Your task to perform on an android device: Open Youtube and go to the subscriptions tab Image 0: 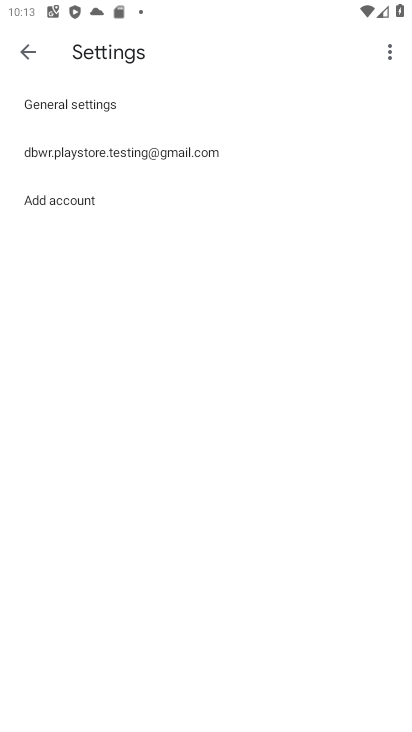
Step 0: press back button
Your task to perform on an android device: Open Youtube and go to the subscriptions tab Image 1: 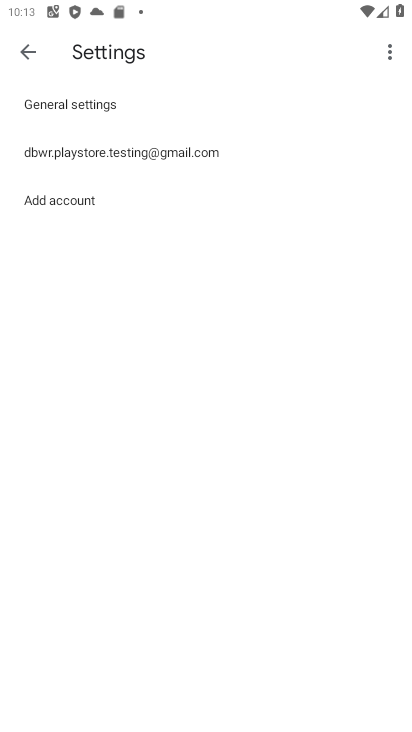
Step 1: press back button
Your task to perform on an android device: Open Youtube and go to the subscriptions tab Image 2: 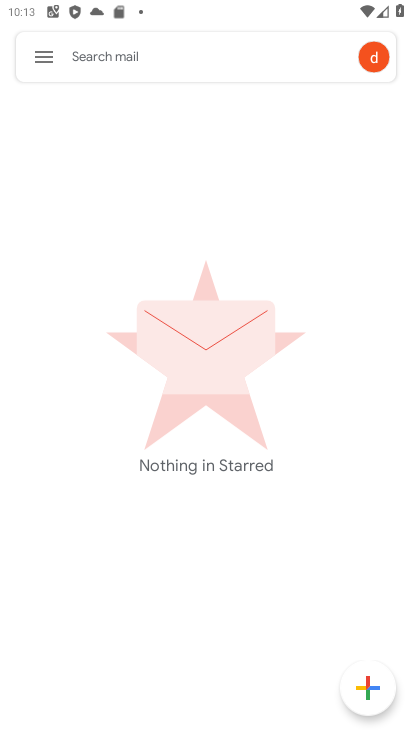
Step 2: press back button
Your task to perform on an android device: Open Youtube and go to the subscriptions tab Image 3: 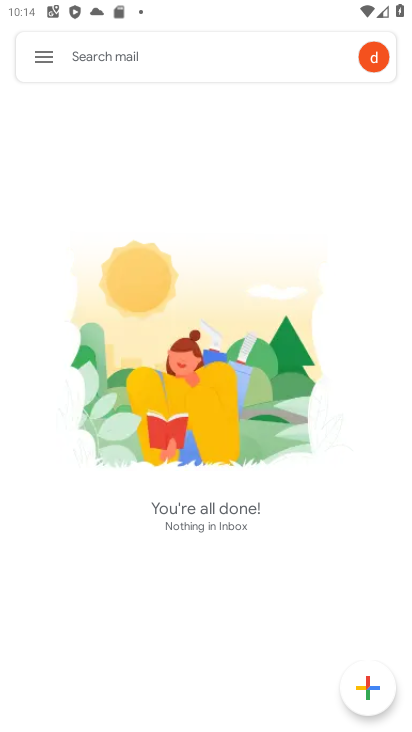
Step 3: press back button
Your task to perform on an android device: Open Youtube and go to the subscriptions tab Image 4: 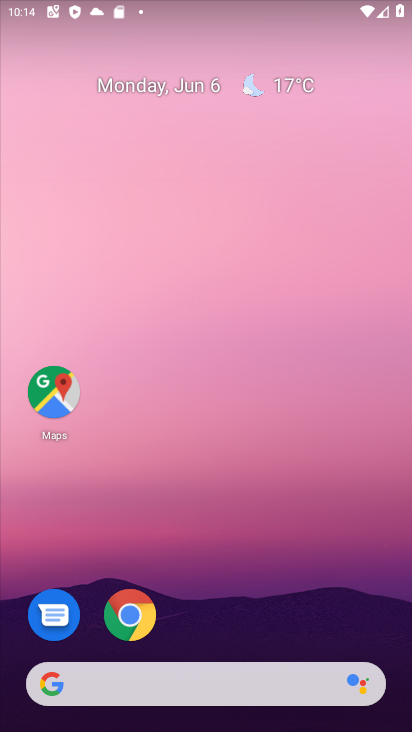
Step 4: drag from (234, 582) to (372, 6)
Your task to perform on an android device: Open Youtube and go to the subscriptions tab Image 5: 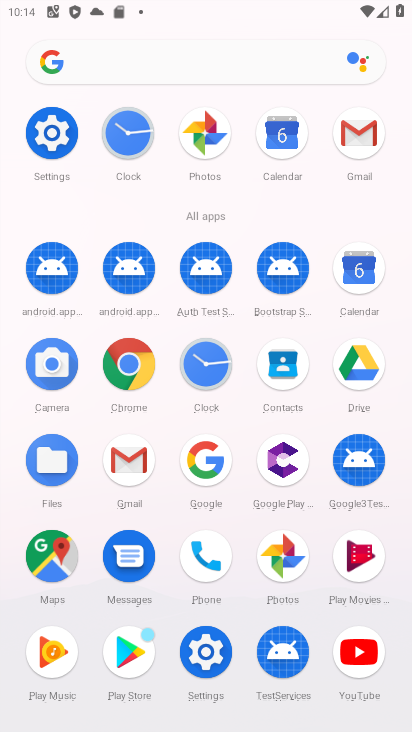
Step 5: click (369, 643)
Your task to perform on an android device: Open Youtube and go to the subscriptions tab Image 6: 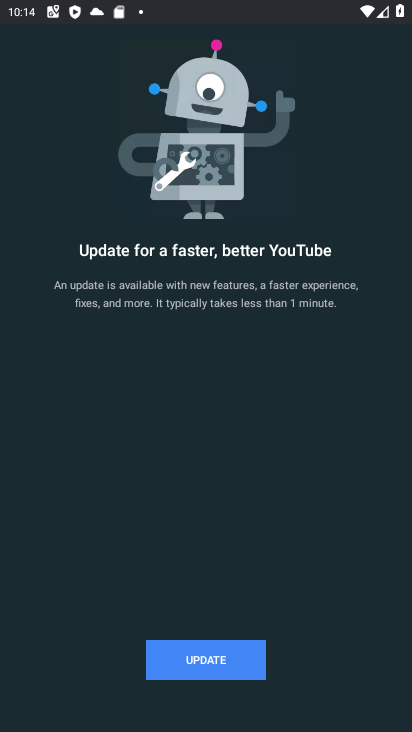
Step 6: click (236, 662)
Your task to perform on an android device: Open Youtube and go to the subscriptions tab Image 7: 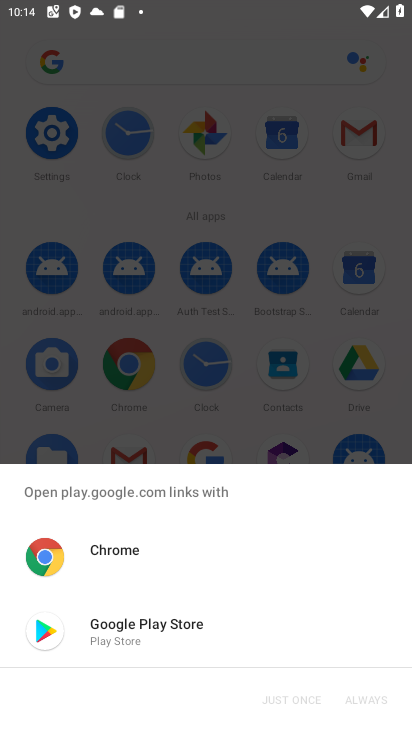
Step 7: click (101, 622)
Your task to perform on an android device: Open Youtube and go to the subscriptions tab Image 8: 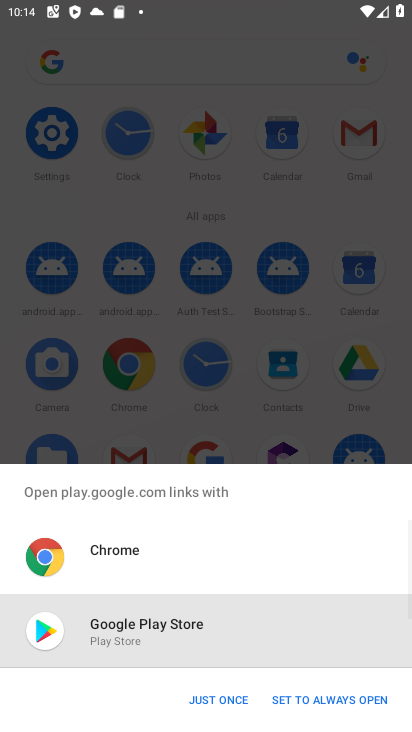
Step 8: click (223, 697)
Your task to perform on an android device: Open Youtube and go to the subscriptions tab Image 9: 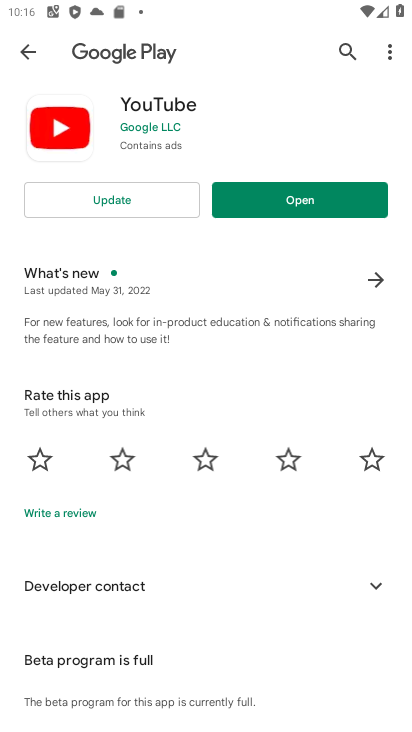
Step 9: click (293, 203)
Your task to perform on an android device: Open Youtube and go to the subscriptions tab Image 10: 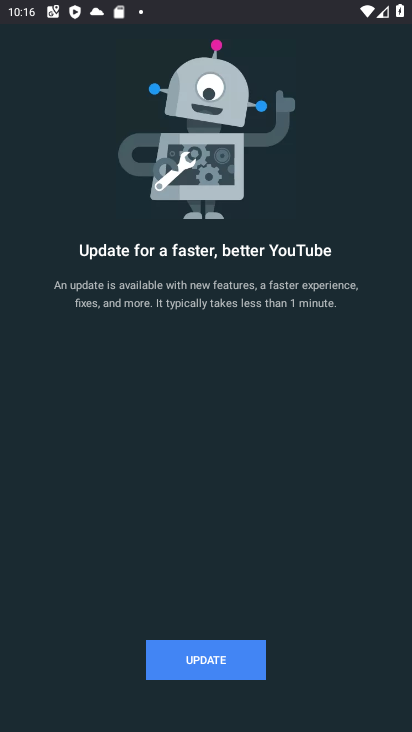
Step 10: click (191, 664)
Your task to perform on an android device: Open Youtube and go to the subscriptions tab Image 11: 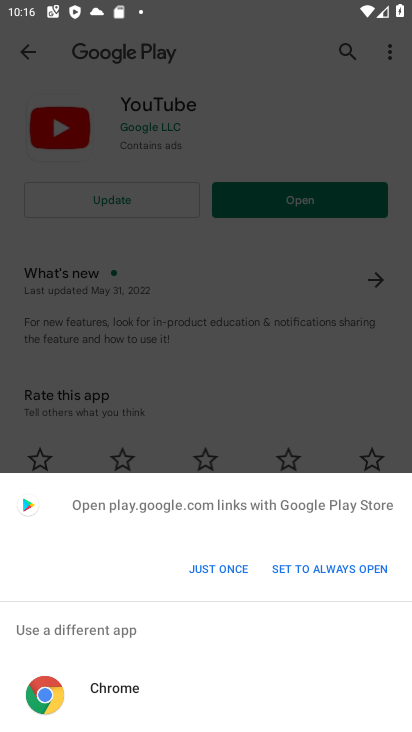
Step 11: click (213, 566)
Your task to perform on an android device: Open Youtube and go to the subscriptions tab Image 12: 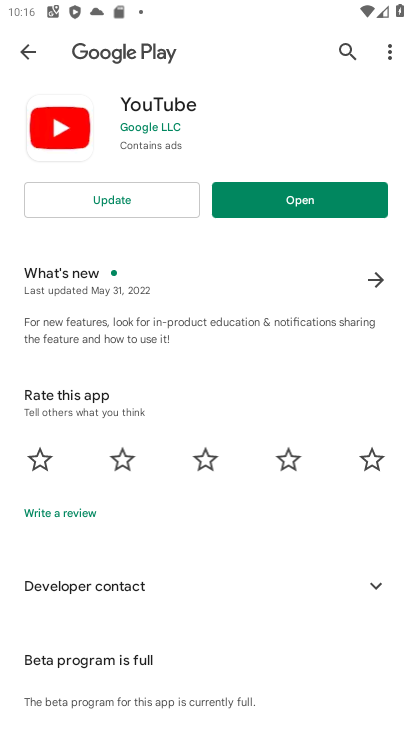
Step 12: click (115, 192)
Your task to perform on an android device: Open Youtube and go to the subscriptions tab Image 13: 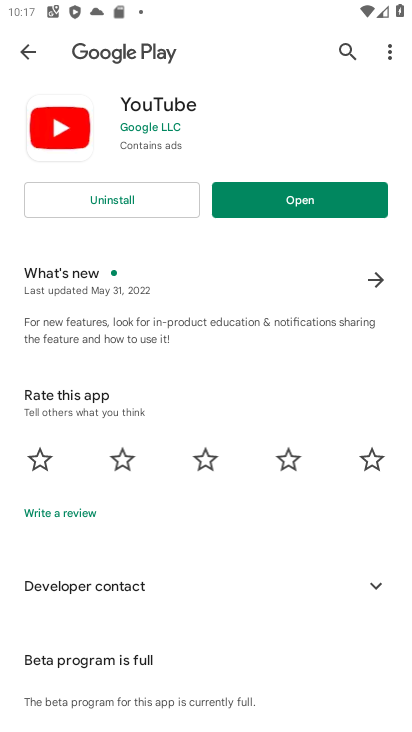
Step 13: click (268, 207)
Your task to perform on an android device: Open Youtube and go to the subscriptions tab Image 14: 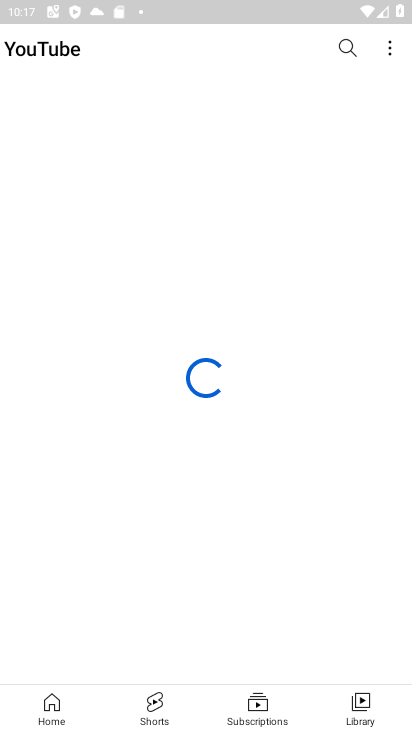
Step 14: click (252, 713)
Your task to perform on an android device: Open Youtube and go to the subscriptions tab Image 15: 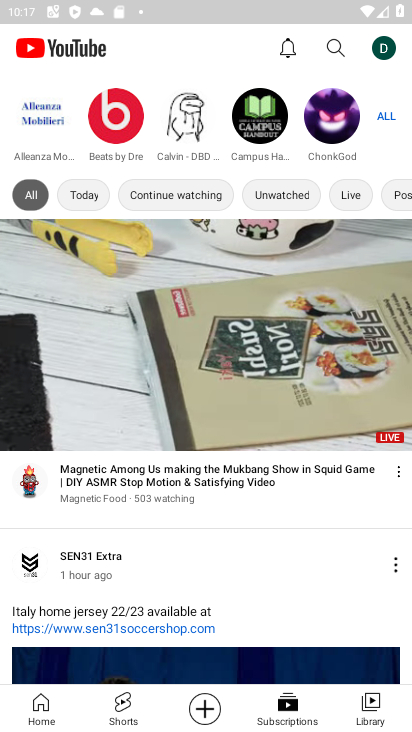
Step 15: task complete